Your task to perform on an android device: Open calendar and show me the first week of next month Image 0: 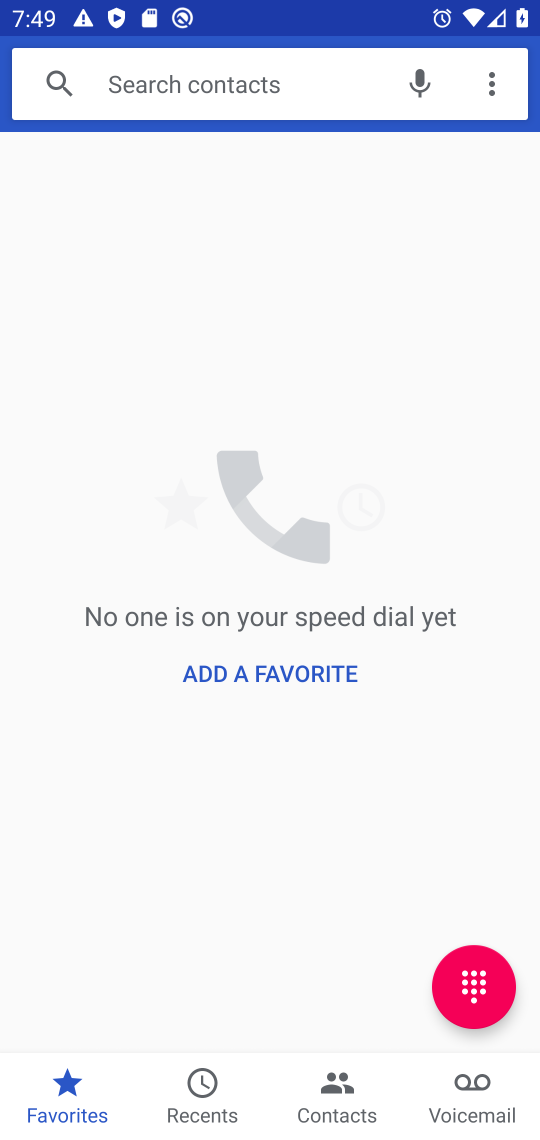
Step 0: press home button
Your task to perform on an android device: Open calendar and show me the first week of next month Image 1: 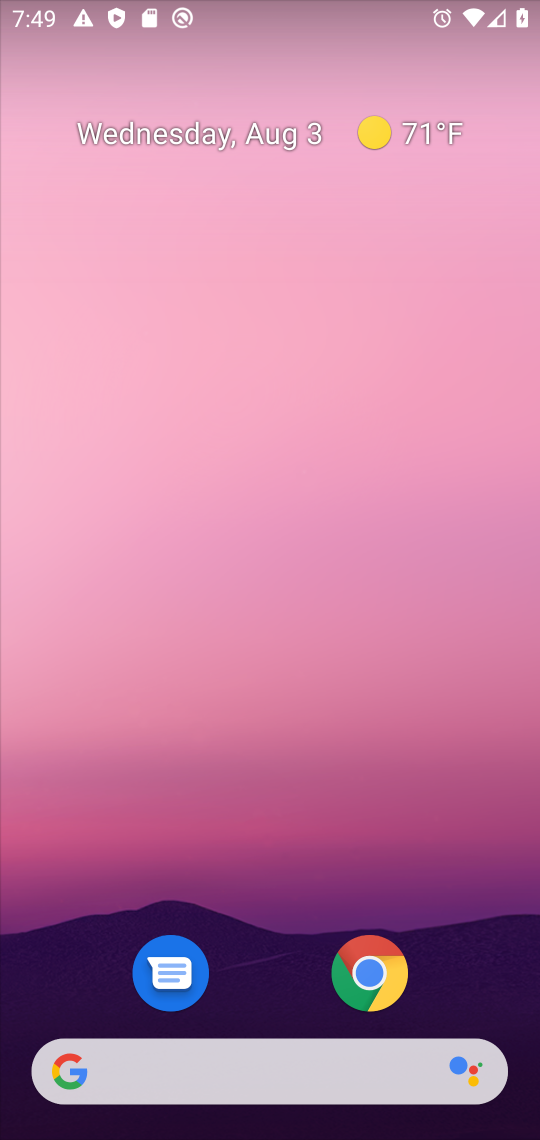
Step 1: drag from (272, 982) to (292, 105)
Your task to perform on an android device: Open calendar and show me the first week of next month Image 2: 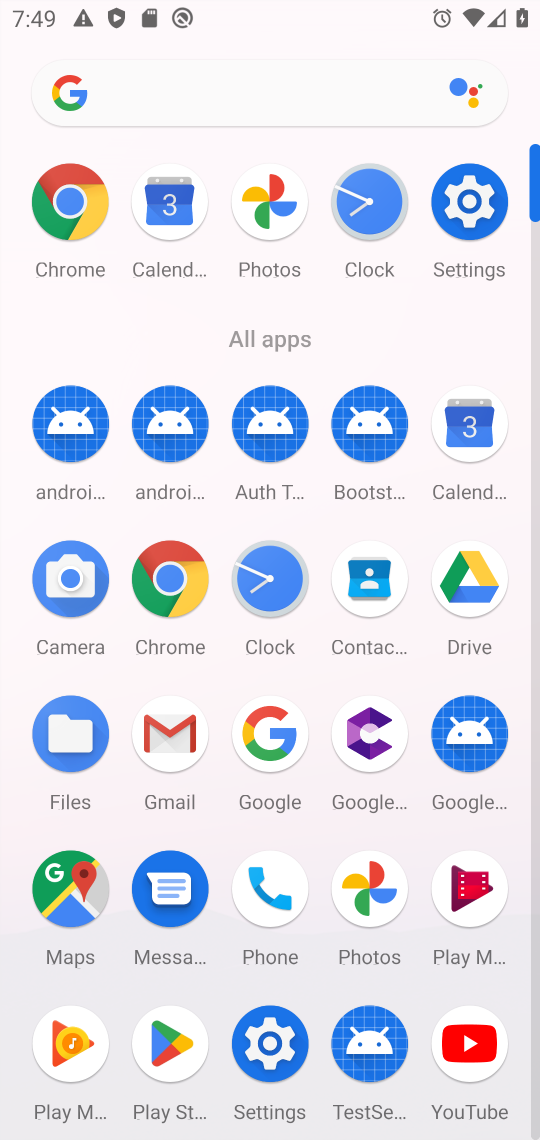
Step 2: click (460, 470)
Your task to perform on an android device: Open calendar and show me the first week of next month Image 3: 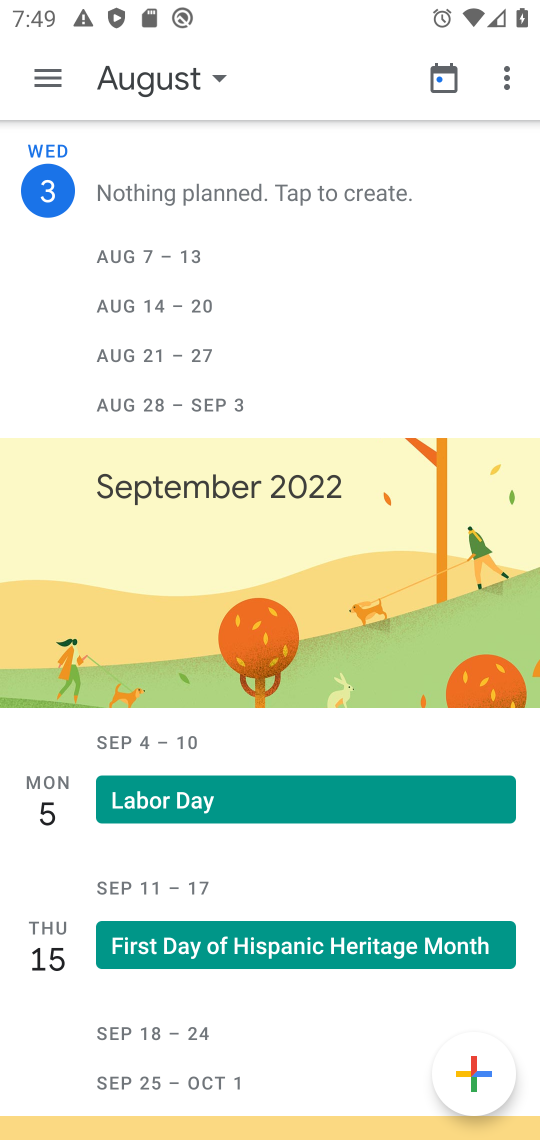
Step 3: click (194, 81)
Your task to perform on an android device: Open calendar and show me the first week of next month Image 4: 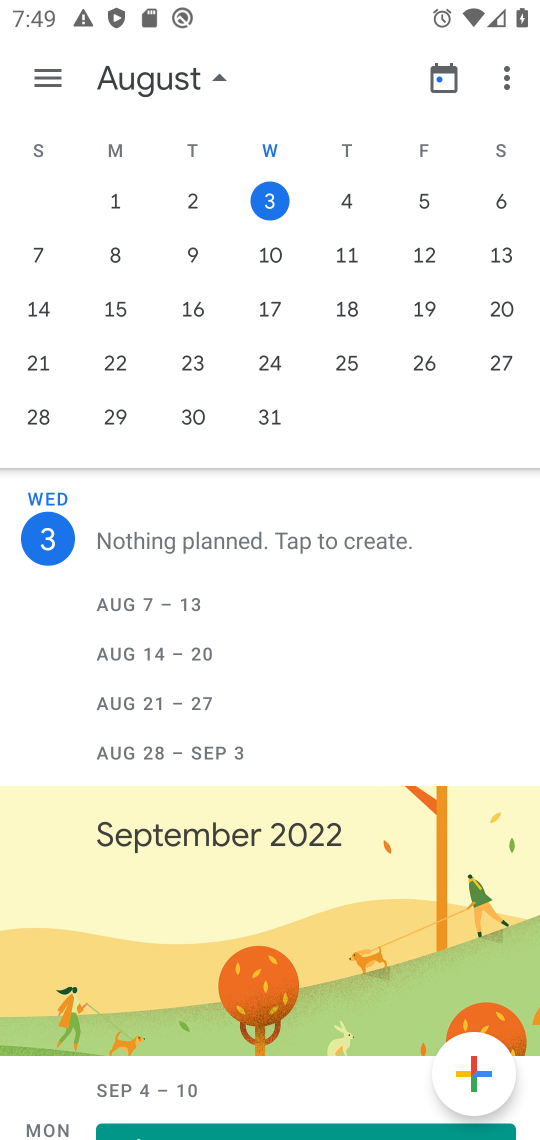
Step 4: click (312, 301)
Your task to perform on an android device: Open calendar and show me the first week of next month Image 5: 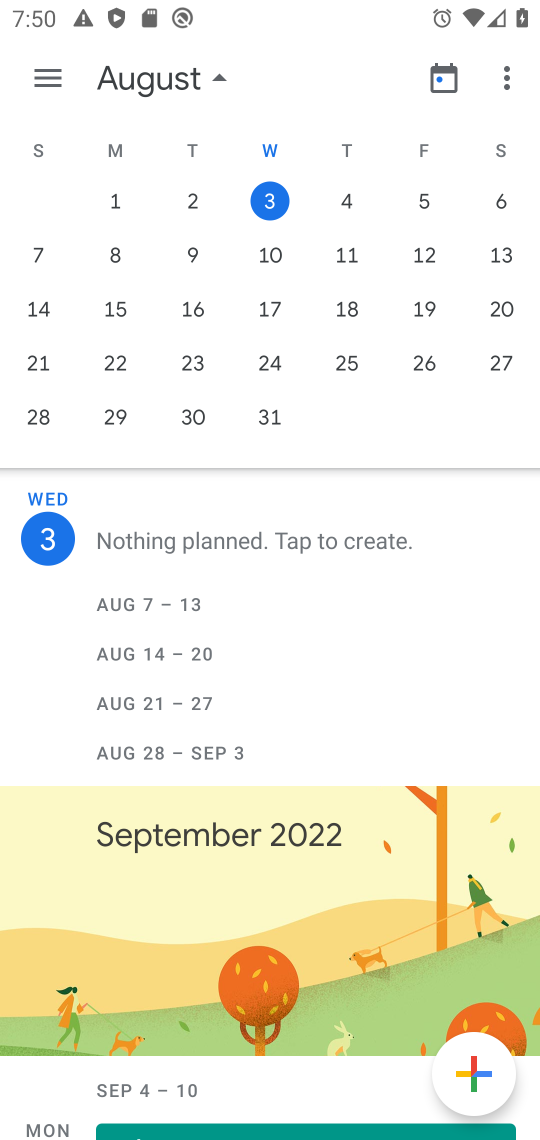
Step 5: drag from (173, 328) to (4, 314)
Your task to perform on an android device: Open calendar and show me the first week of next month Image 6: 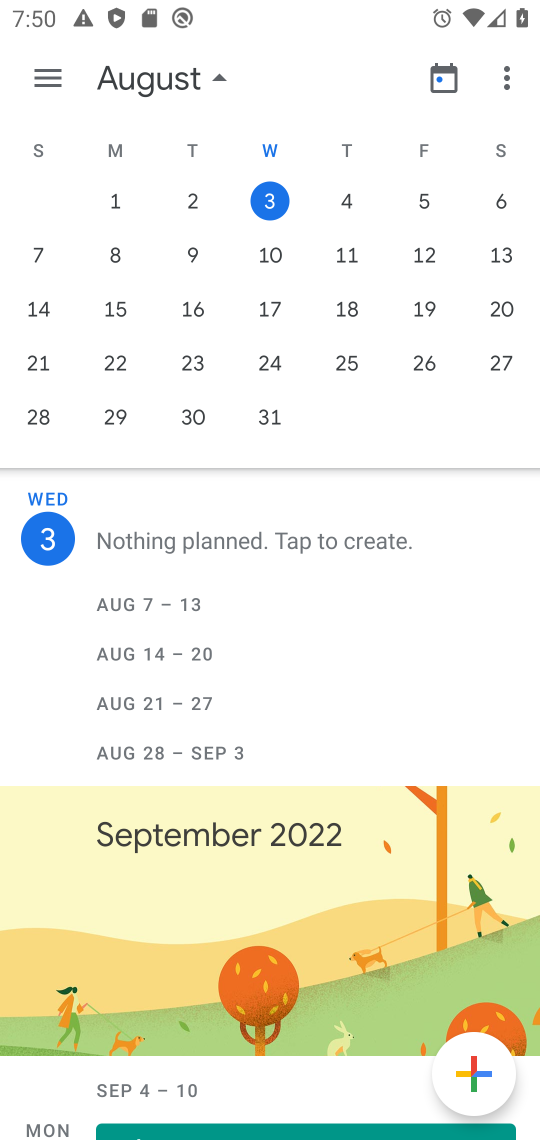
Step 6: drag from (346, 289) to (3, 273)
Your task to perform on an android device: Open calendar and show me the first week of next month Image 7: 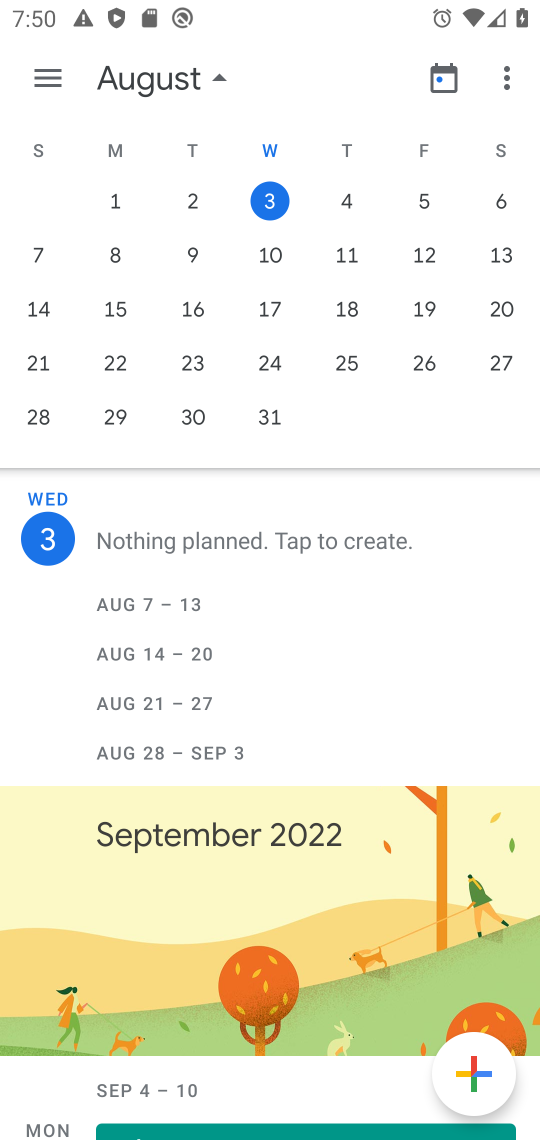
Step 7: drag from (498, 303) to (67, 203)
Your task to perform on an android device: Open calendar and show me the first week of next month Image 8: 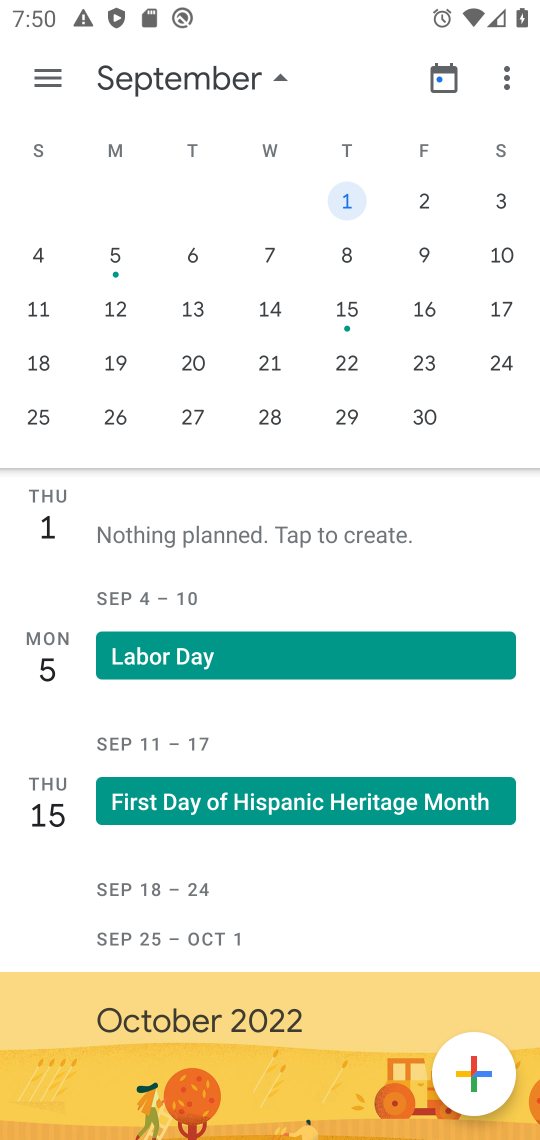
Step 8: click (37, 82)
Your task to perform on an android device: Open calendar and show me the first week of next month Image 9: 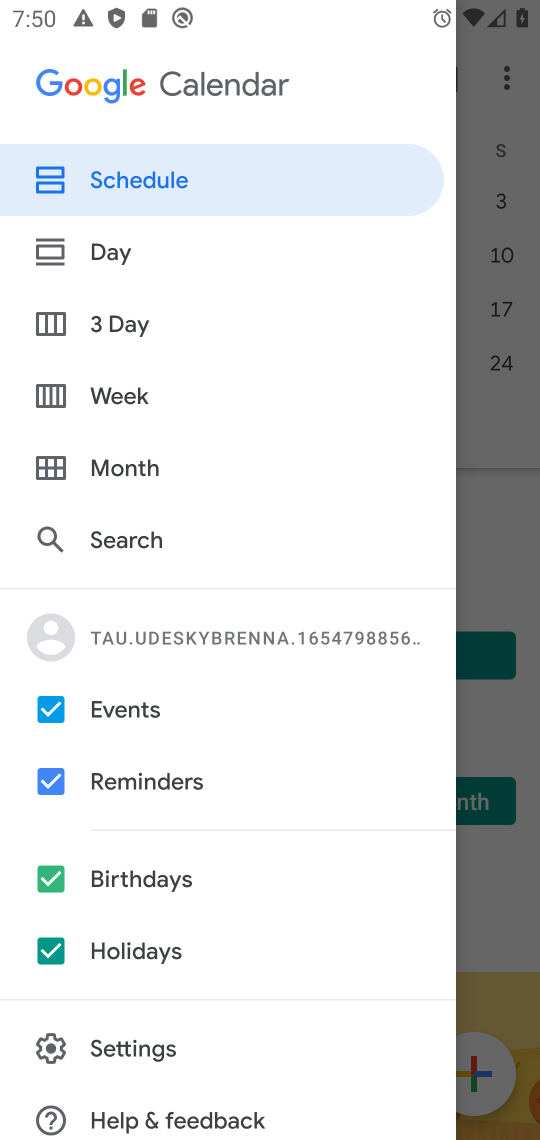
Step 9: click (79, 409)
Your task to perform on an android device: Open calendar and show me the first week of next month Image 10: 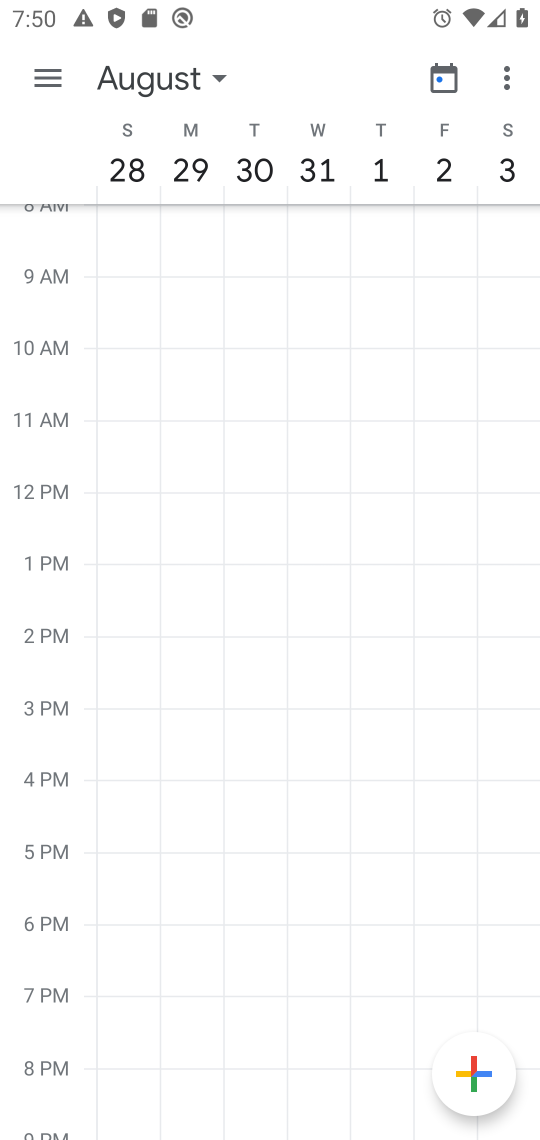
Step 10: task complete